Your task to perform on an android device: Go to Maps Image 0: 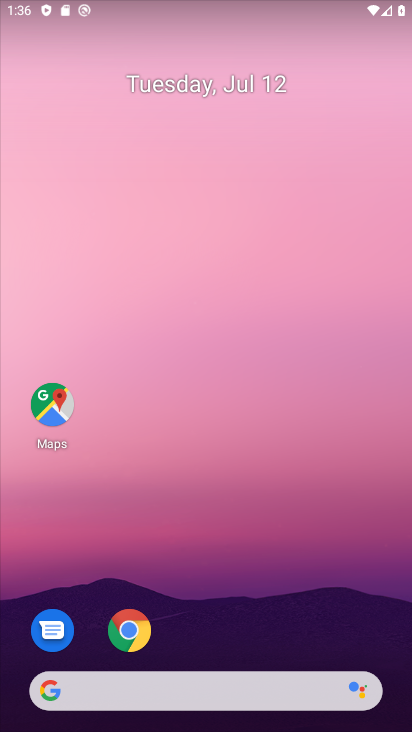
Step 0: drag from (168, 640) to (319, 108)
Your task to perform on an android device: Go to Maps Image 1: 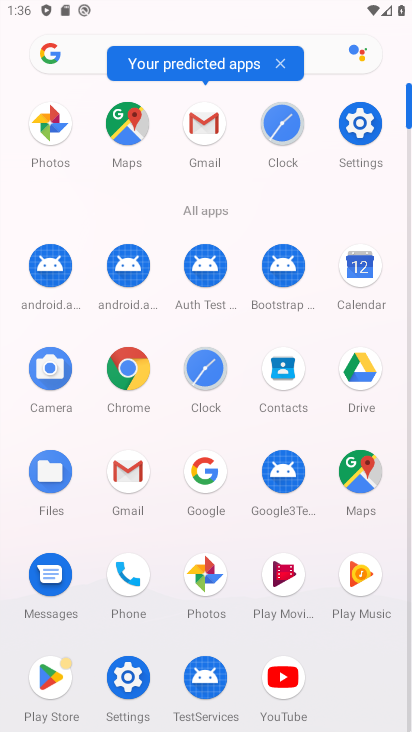
Step 1: click (349, 479)
Your task to perform on an android device: Go to Maps Image 2: 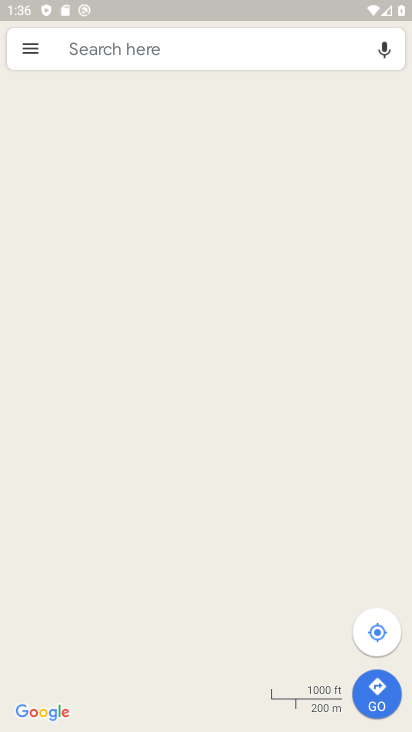
Step 2: task complete